Your task to perform on an android device: Open settings Image 0: 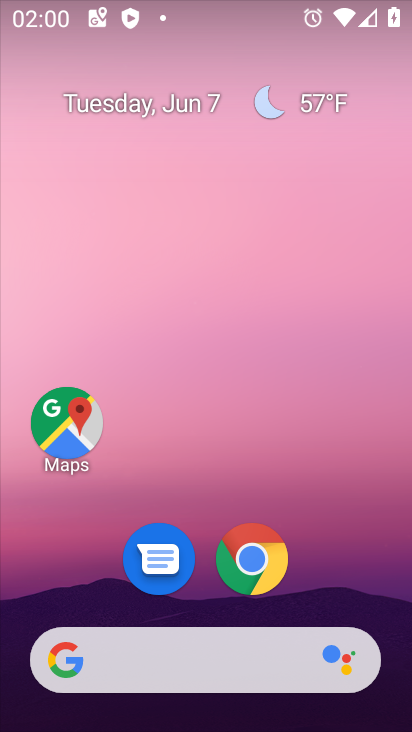
Step 0: drag from (317, 578) to (237, 89)
Your task to perform on an android device: Open settings Image 1: 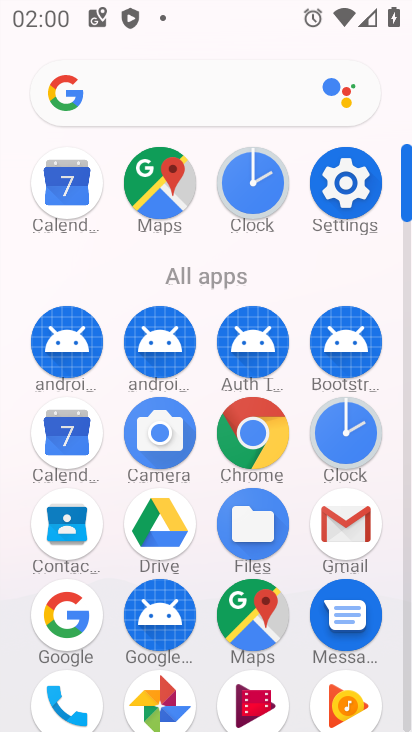
Step 1: click (342, 183)
Your task to perform on an android device: Open settings Image 2: 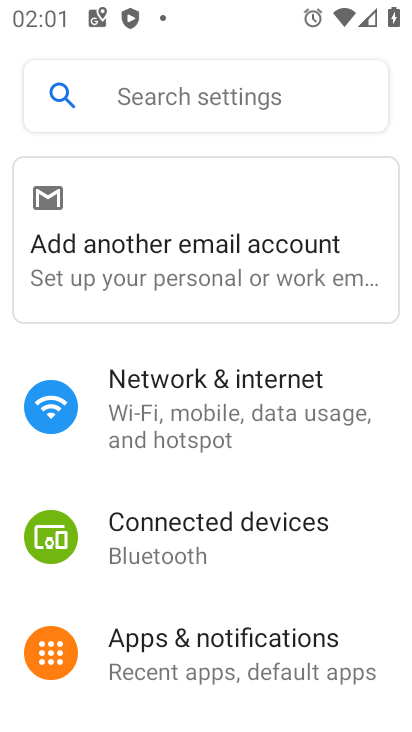
Step 2: task complete